Your task to perform on an android device: change the upload size in google photos Image 0: 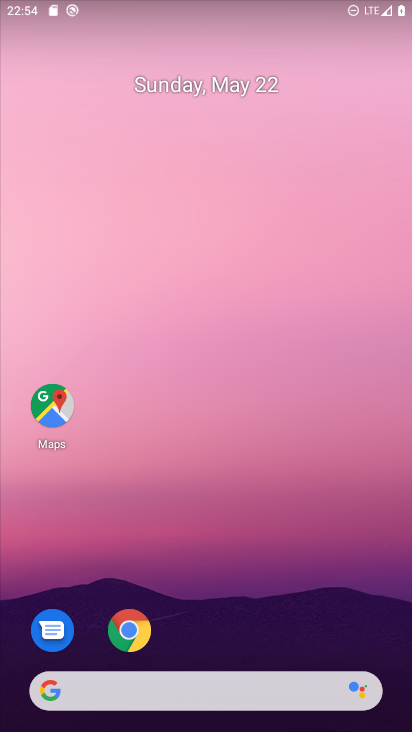
Step 0: press home button
Your task to perform on an android device: change the upload size in google photos Image 1: 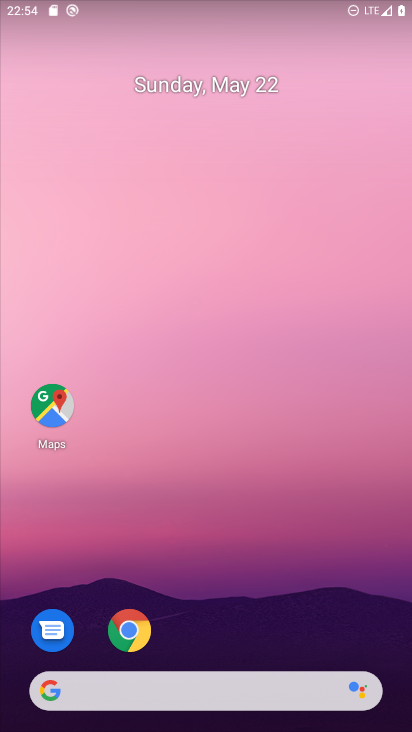
Step 1: drag from (195, 687) to (339, 136)
Your task to perform on an android device: change the upload size in google photos Image 2: 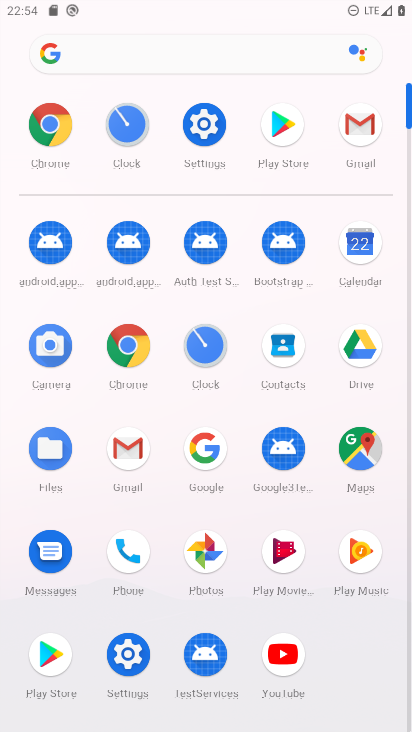
Step 2: click (209, 560)
Your task to perform on an android device: change the upload size in google photos Image 3: 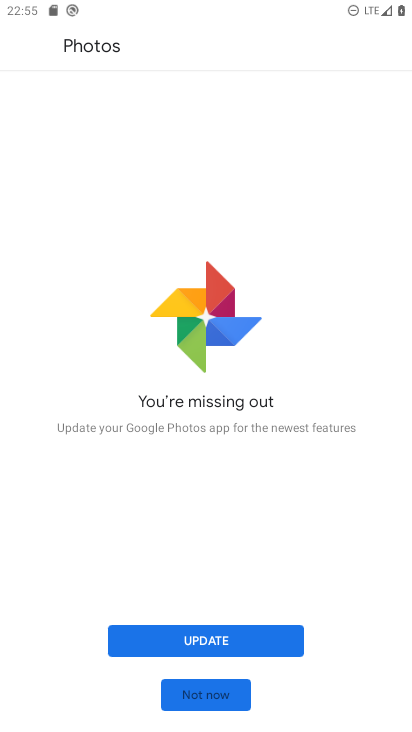
Step 3: click (224, 643)
Your task to perform on an android device: change the upload size in google photos Image 4: 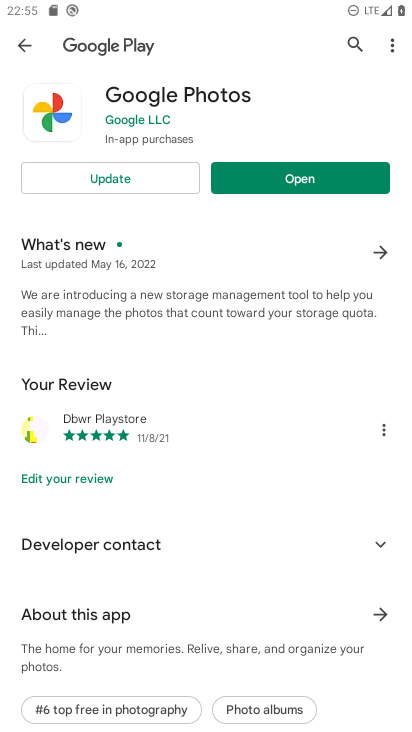
Step 4: click (157, 169)
Your task to perform on an android device: change the upload size in google photos Image 5: 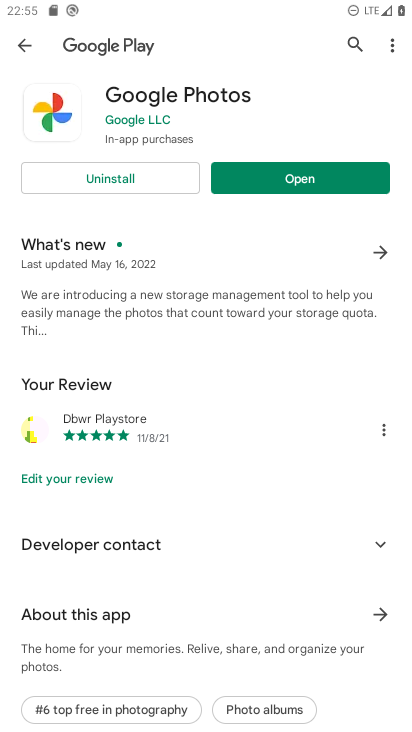
Step 5: click (345, 181)
Your task to perform on an android device: change the upload size in google photos Image 6: 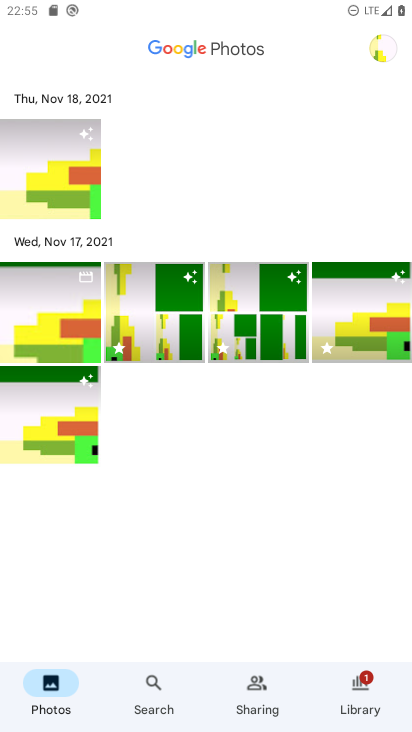
Step 6: click (379, 58)
Your task to perform on an android device: change the upload size in google photos Image 7: 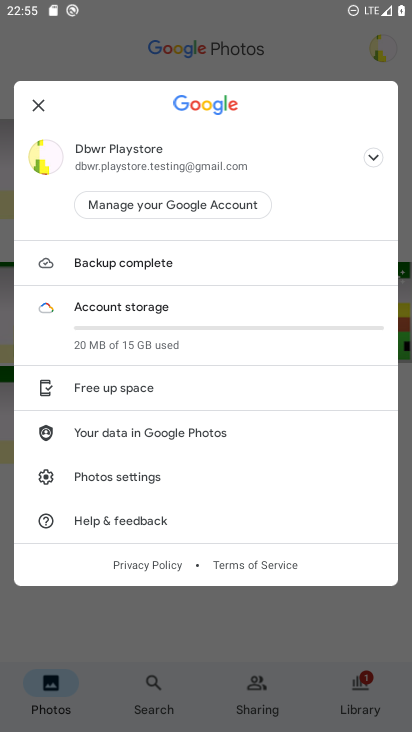
Step 7: click (134, 470)
Your task to perform on an android device: change the upload size in google photos Image 8: 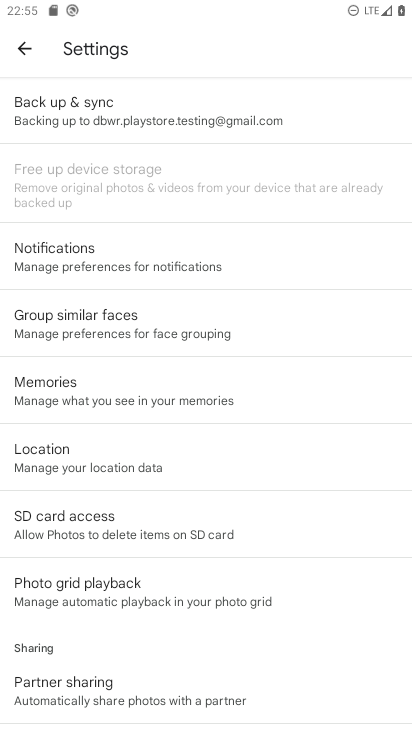
Step 8: click (148, 123)
Your task to perform on an android device: change the upload size in google photos Image 9: 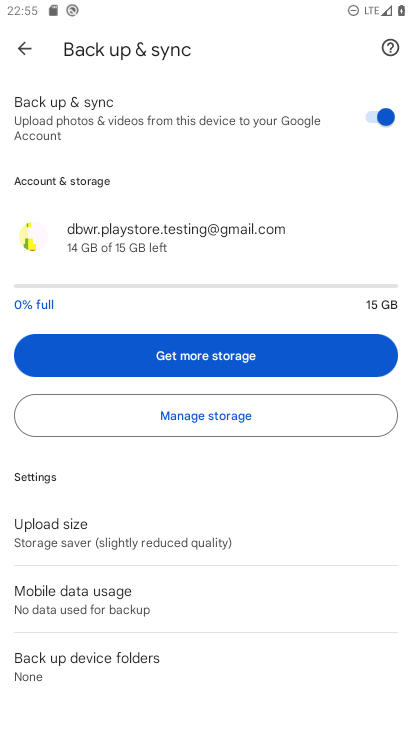
Step 9: click (158, 537)
Your task to perform on an android device: change the upload size in google photos Image 10: 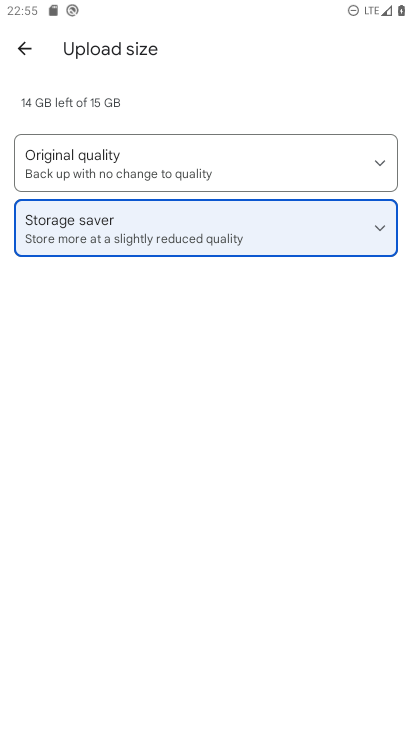
Step 10: click (375, 158)
Your task to perform on an android device: change the upload size in google photos Image 11: 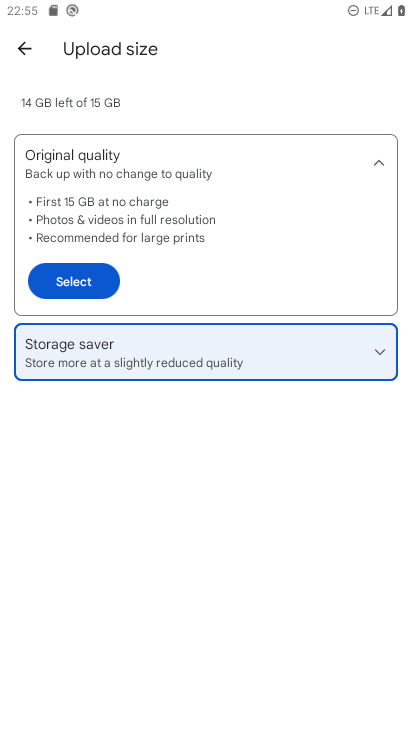
Step 11: click (90, 279)
Your task to perform on an android device: change the upload size in google photos Image 12: 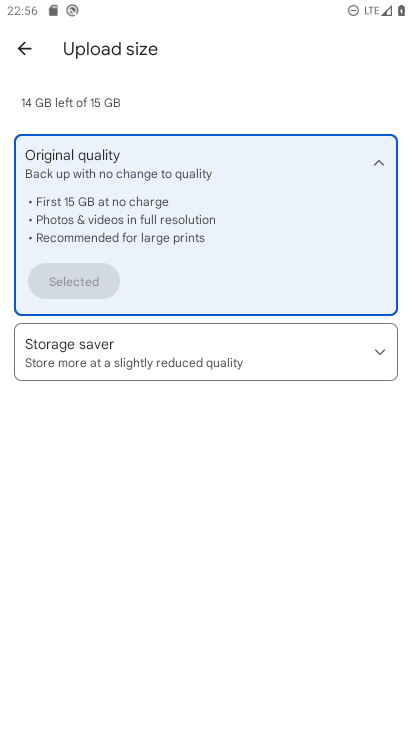
Step 12: task complete